Your task to perform on an android device: Go to CNN.com Image 0: 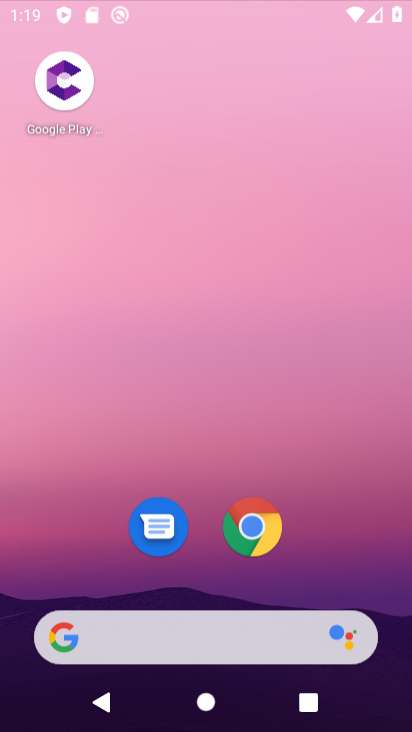
Step 0: drag from (199, 342) to (262, 144)
Your task to perform on an android device: Go to CNN.com Image 1: 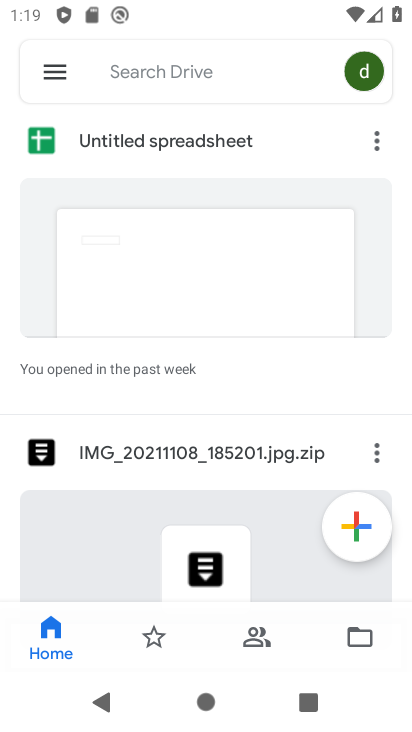
Step 1: press home button
Your task to perform on an android device: Go to CNN.com Image 2: 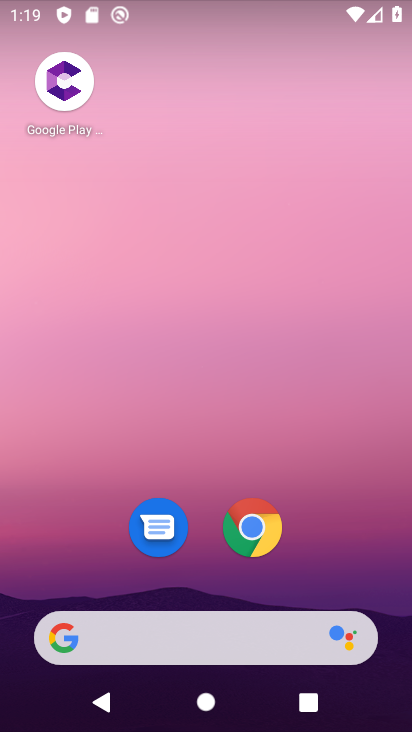
Step 2: click (183, 616)
Your task to perform on an android device: Go to CNN.com Image 3: 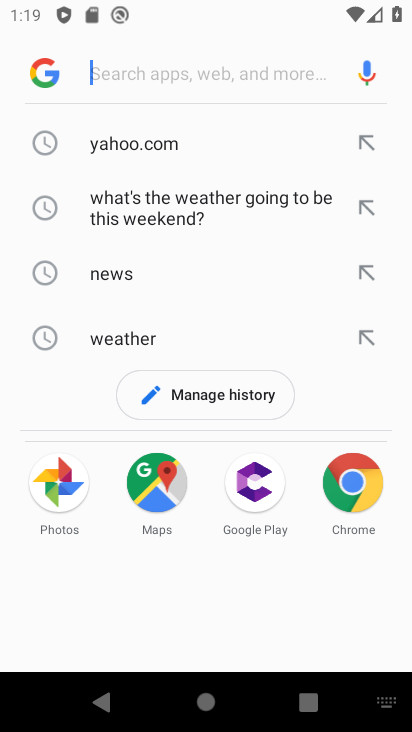
Step 3: type "CNN.com"
Your task to perform on an android device: Go to CNN.com Image 4: 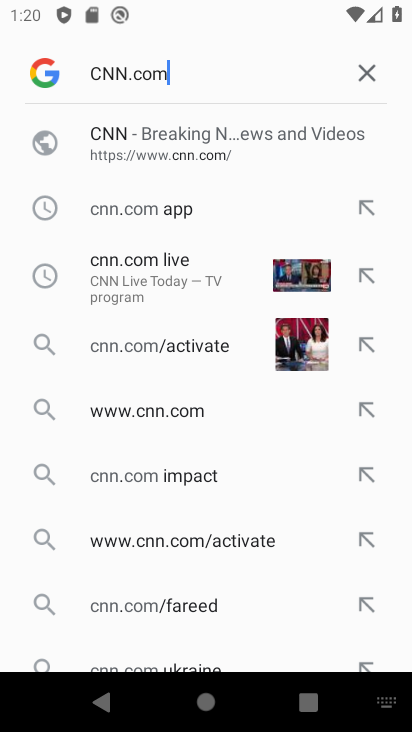
Step 4: click (190, 154)
Your task to perform on an android device: Go to CNN.com Image 5: 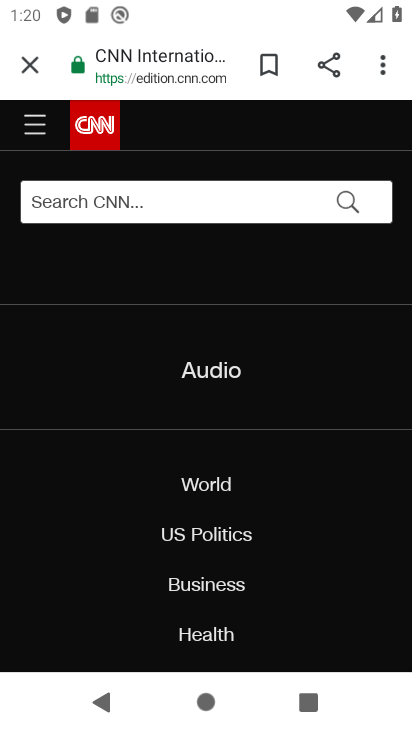
Step 5: task complete